Your task to perform on an android device: open wifi settings Image 0: 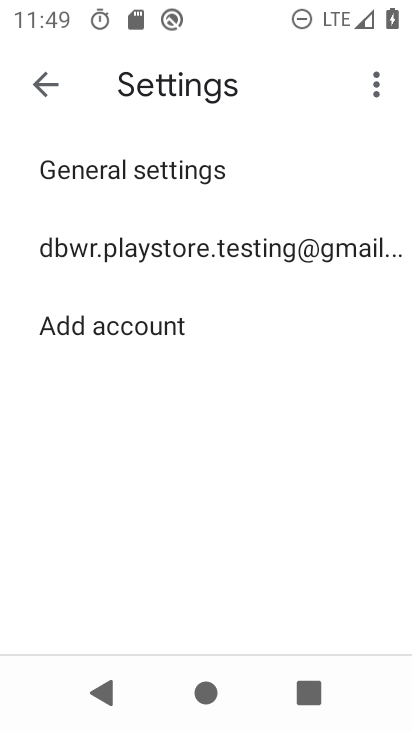
Step 0: press home button
Your task to perform on an android device: open wifi settings Image 1: 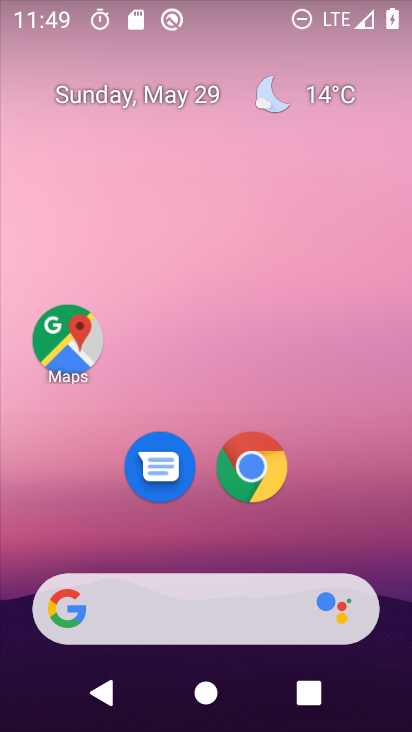
Step 1: drag from (201, 558) to (205, 200)
Your task to perform on an android device: open wifi settings Image 2: 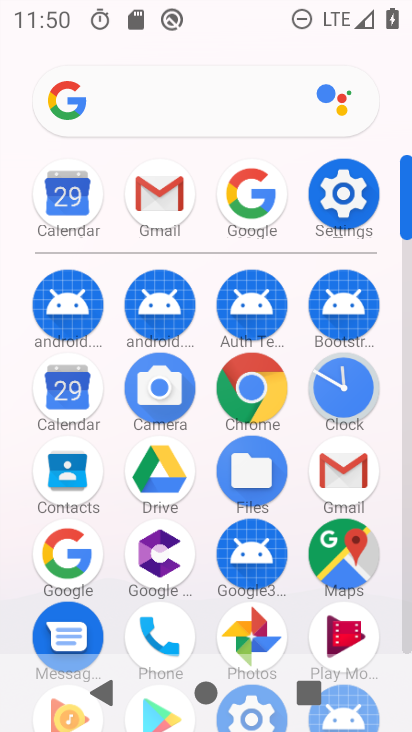
Step 2: click (320, 190)
Your task to perform on an android device: open wifi settings Image 3: 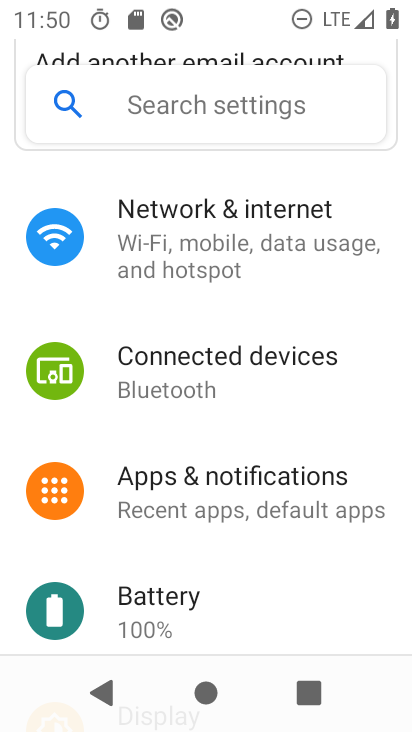
Step 3: click (193, 213)
Your task to perform on an android device: open wifi settings Image 4: 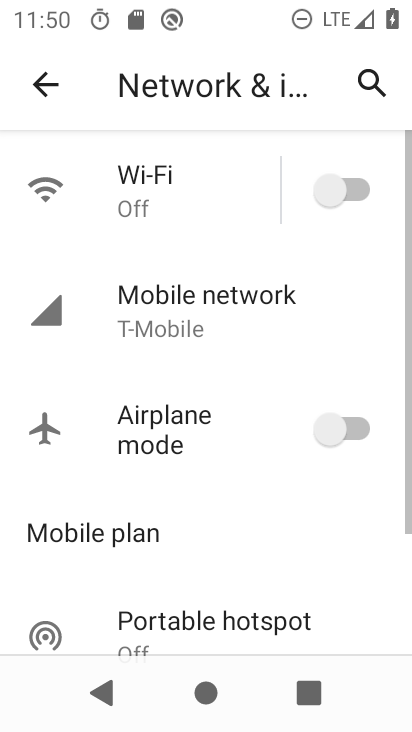
Step 4: click (189, 194)
Your task to perform on an android device: open wifi settings Image 5: 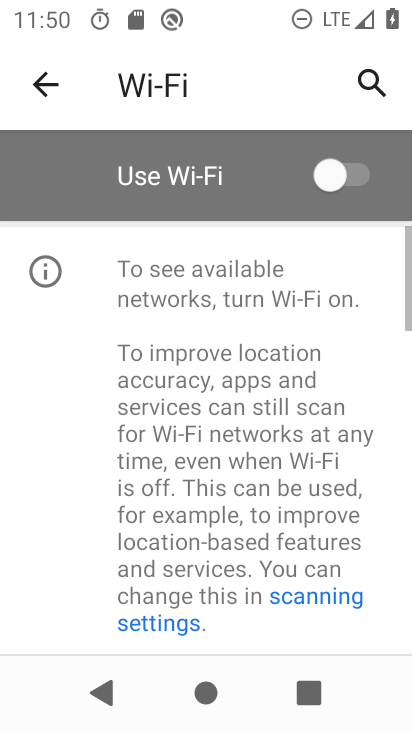
Step 5: task complete